Your task to perform on an android device: turn on javascript in the chrome app Image 0: 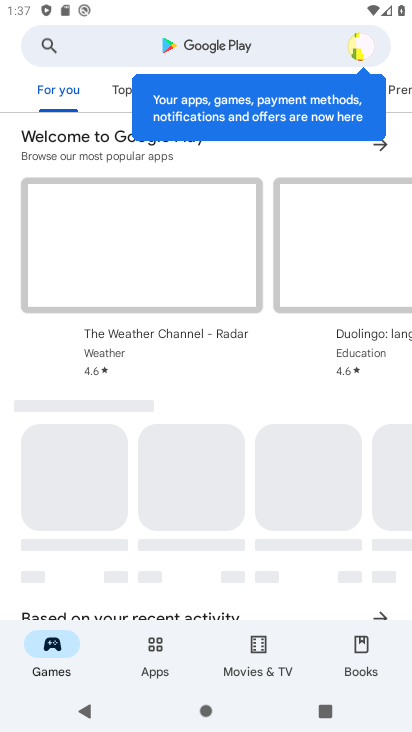
Step 0: press home button
Your task to perform on an android device: turn on javascript in the chrome app Image 1: 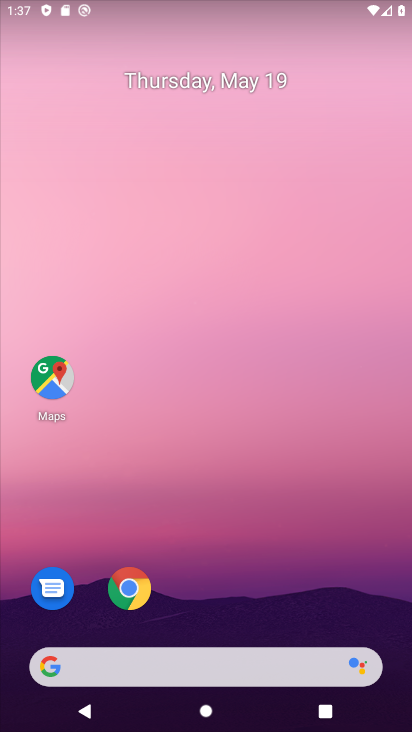
Step 1: click (122, 590)
Your task to perform on an android device: turn on javascript in the chrome app Image 2: 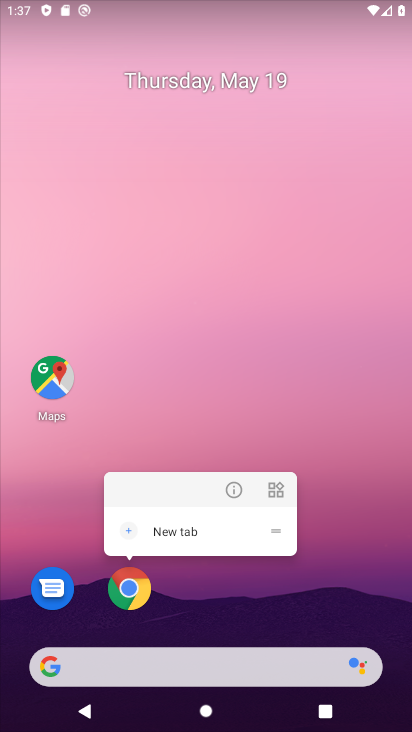
Step 2: click (130, 589)
Your task to perform on an android device: turn on javascript in the chrome app Image 3: 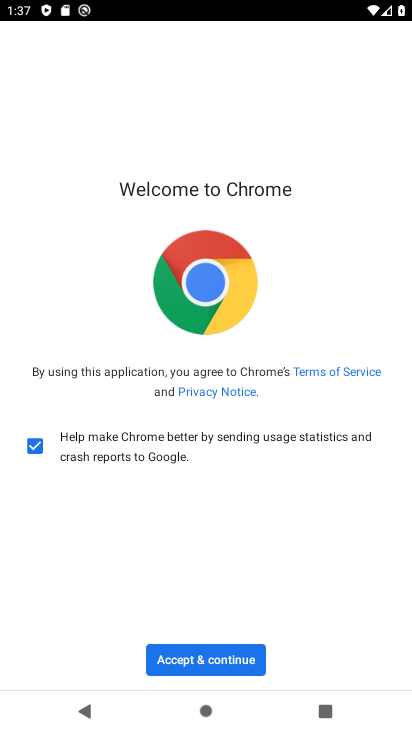
Step 3: click (217, 666)
Your task to perform on an android device: turn on javascript in the chrome app Image 4: 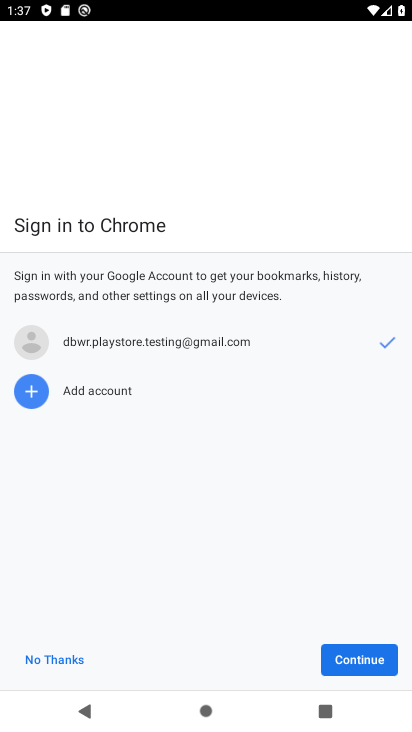
Step 4: click (349, 664)
Your task to perform on an android device: turn on javascript in the chrome app Image 5: 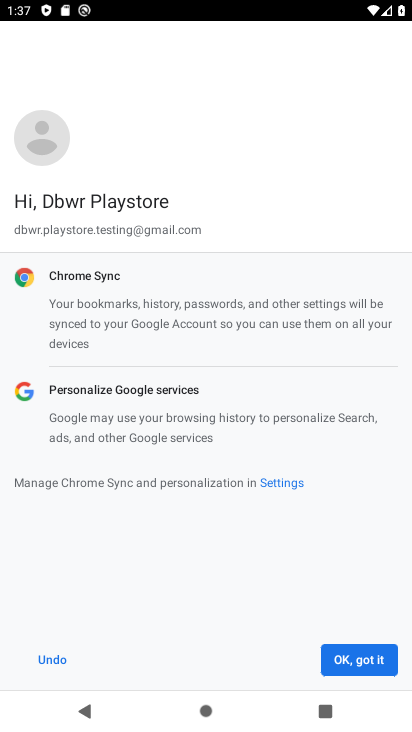
Step 5: click (349, 664)
Your task to perform on an android device: turn on javascript in the chrome app Image 6: 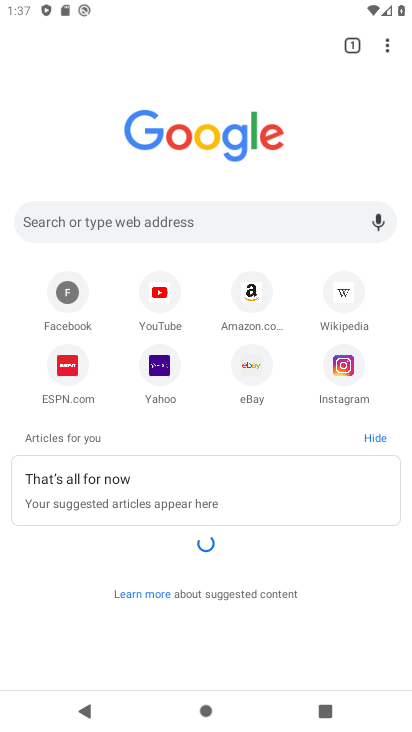
Step 6: click (383, 46)
Your task to perform on an android device: turn on javascript in the chrome app Image 7: 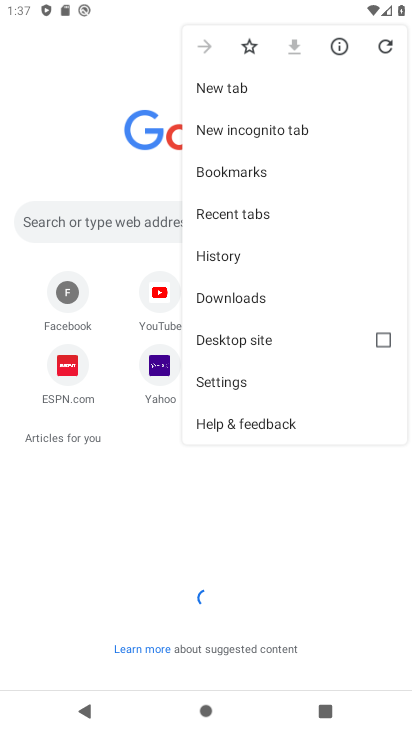
Step 7: click (252, 376)
Your task to perform on an android device: turn on javascript in the chrome app Image 8: 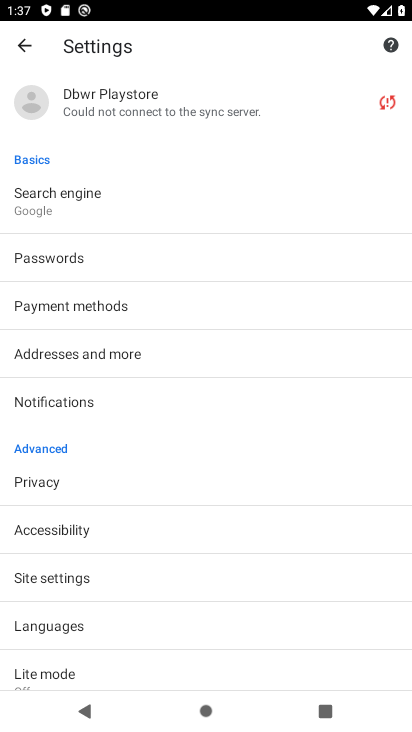
Step 8: click (90, 579)
Your task to perform on an android device: turn on javascript in the chrome app Image 9: 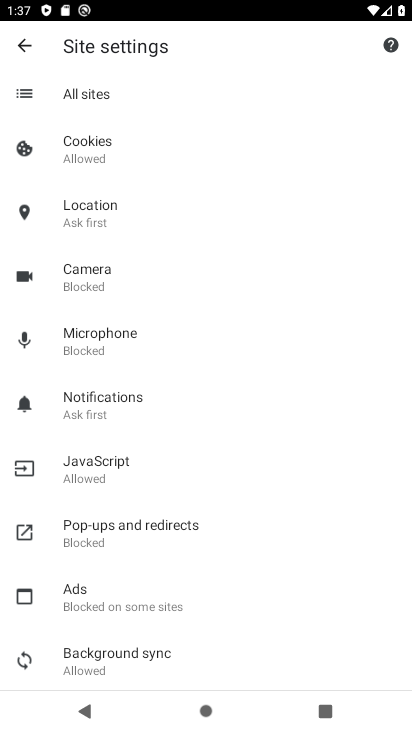
Step 9: click (90, 461)
Your task to perform on an android device: turn on javascript in the chrome app Image 10: 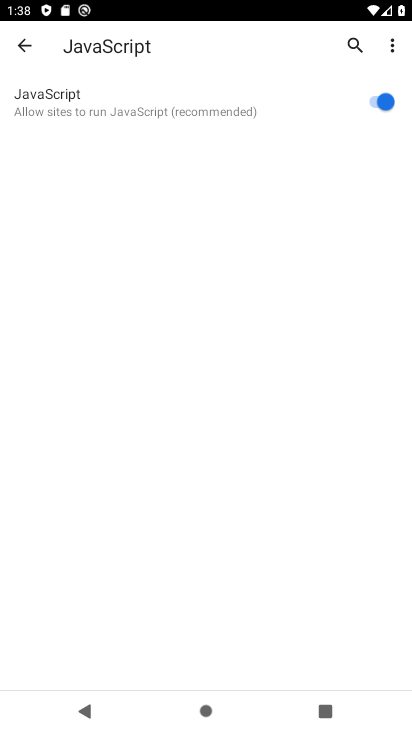
Step 10: task complete